Your task to perform on an android device: Open CNN.com Image 0: 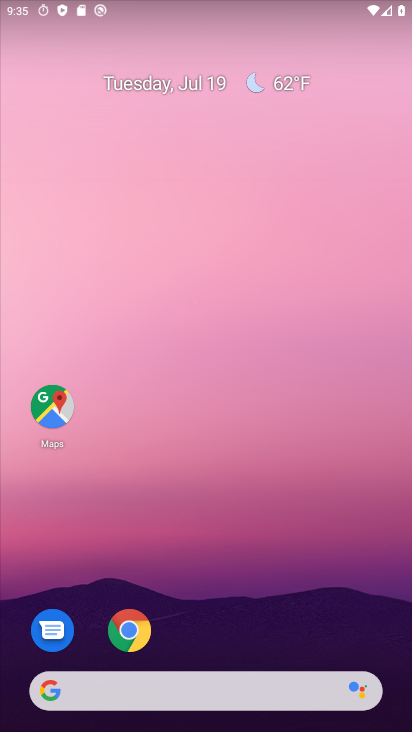
Step 0: drag from (207, 626) to (261, 315)
Your task to perform on an android device: Open CNN.com Image 1: 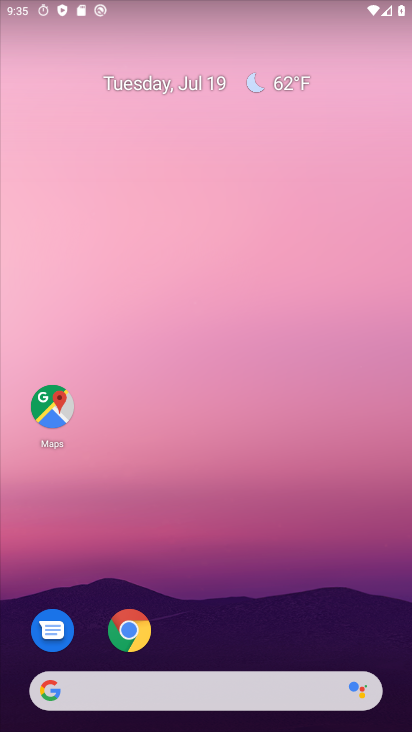
Step 1: drag from (246, 674) to (248, 375)
Your task to perform on an android device: Open CNN.com Image 2: 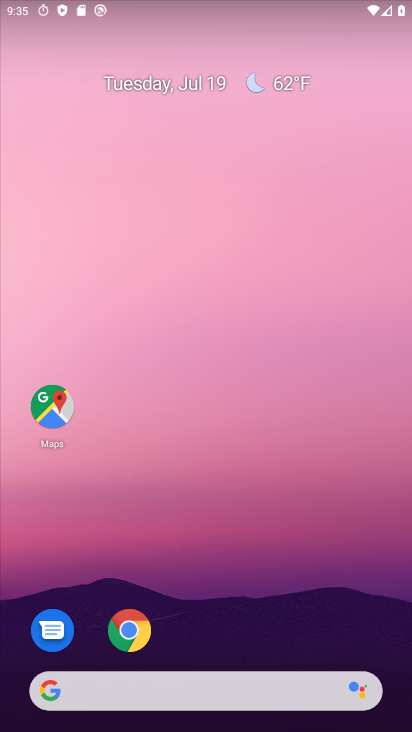
Step 2: drag from (199, 666) to (198, 216)
Your task to perform on an android device: Open CNN.com Image 3: 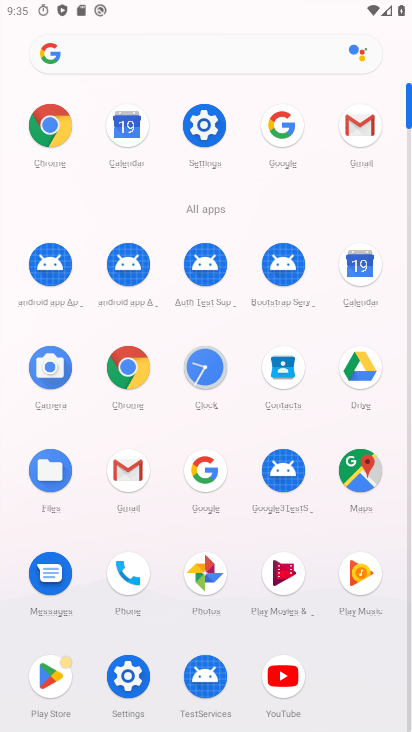
Step 3: click (207, 471)
Your task to perform on an android device: Open CNN.com Image 4: 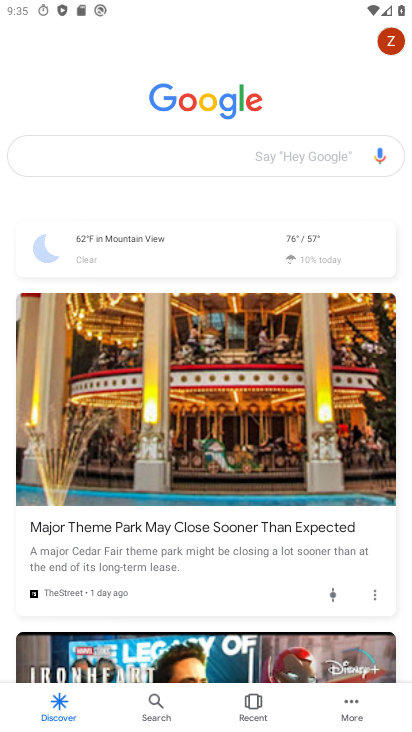
Step 4: drag from (120, 159) to (65, 159)
Your task to perform on an android device: Open CNN.com Image 5: 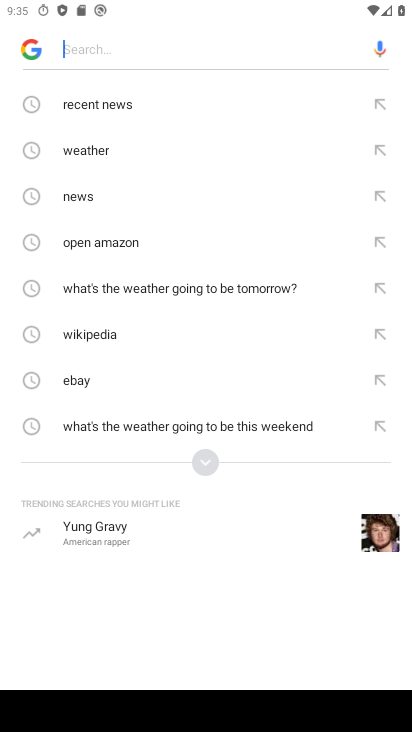
Step 5: click (195, 461)
Your task to perform on an android device: Open CNN.com Image 6: 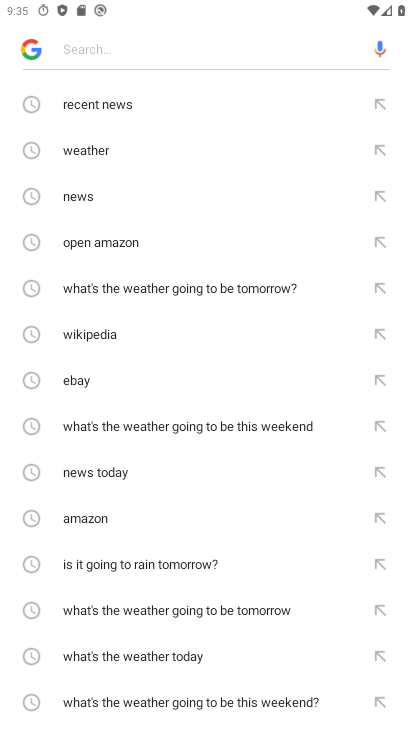
Step 6: drag from (106, 660) to (127, 274)
Your task to perform on an android device: Open CNN.com Image 7: 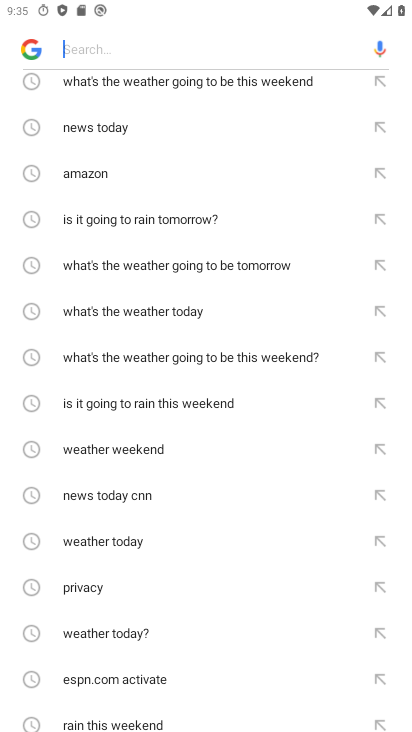
Step 7: drag from (103, 677) to (124, 294)
Your task to perform on an android device: Open CNN.com Image 8: 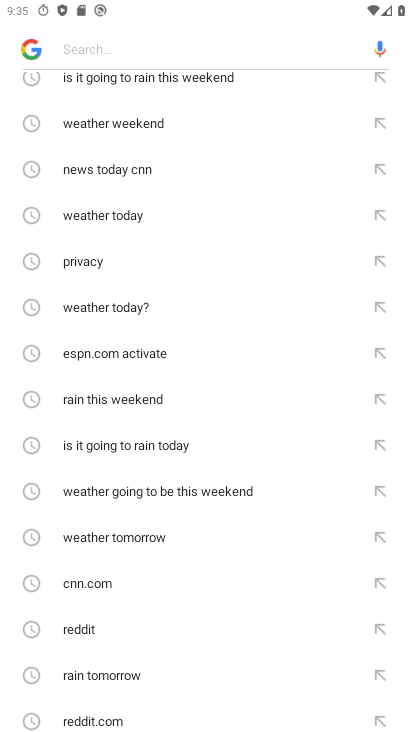
Step 8: click (87, 573)
Your task to perform on an android device: Open CNN.com Image 9: 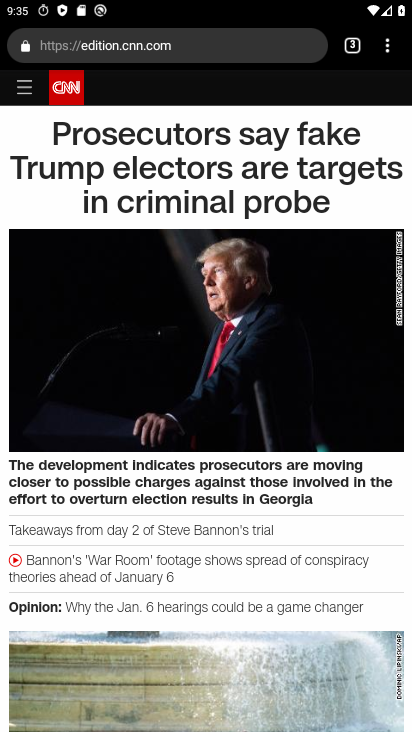
Step 9: task complete